Your task to perform on an android device: turn on showing notifications on the lock screen Image 0: 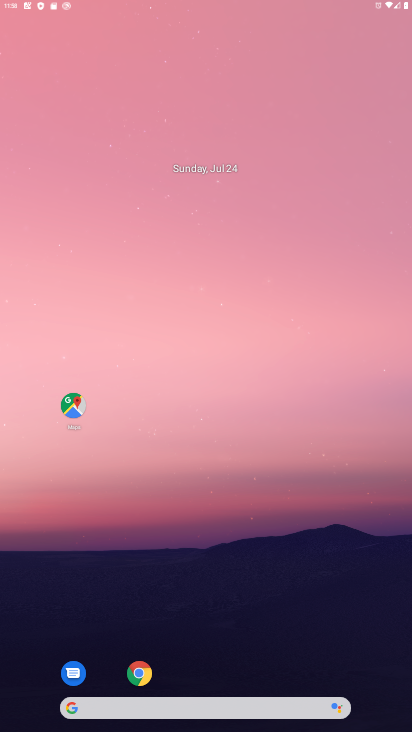
Step 0: drag from (305, 637) to (203, 103)
Your task to perform on an android device: turn on showing notifications on the lock screen Image 1: 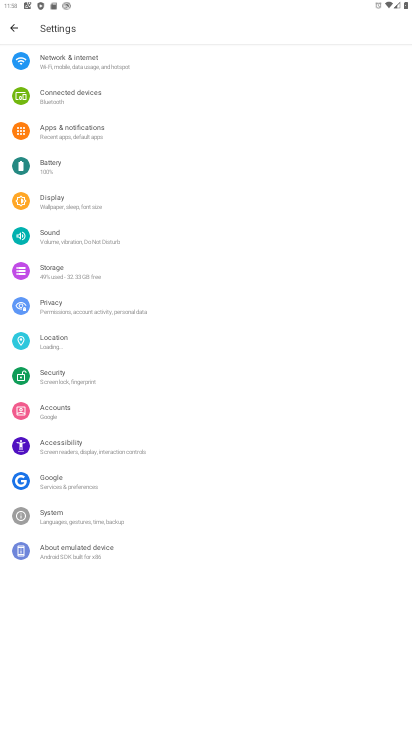
Step 1: press home button
Your task to perform on an android device: turn on showing notifications on the lock screen Image 2: 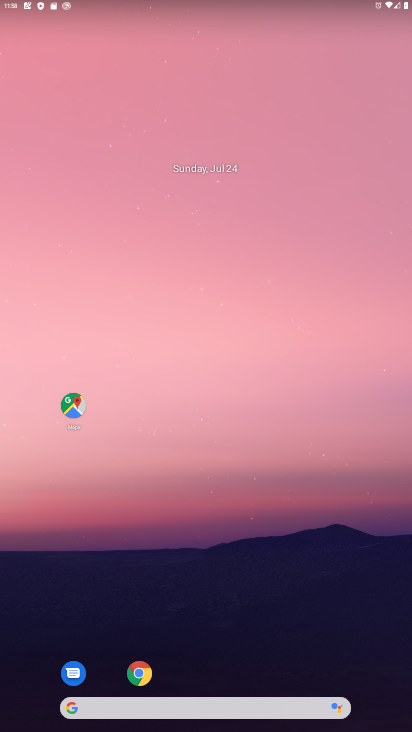
Step 2: drag from (339, 647) to (240, 139)
Your task to perform on an android device: turn on showing notifications on the lock screen Image 3: 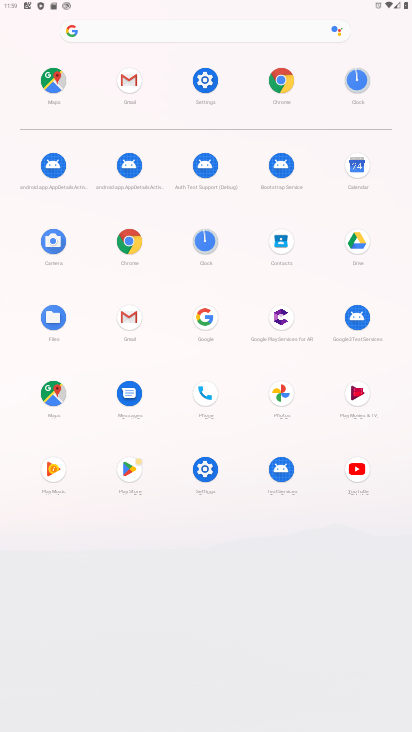
Step 3: click (205, 78)
Your task to perform on an android device: turn on showing notifications on the lock screen Image 4: 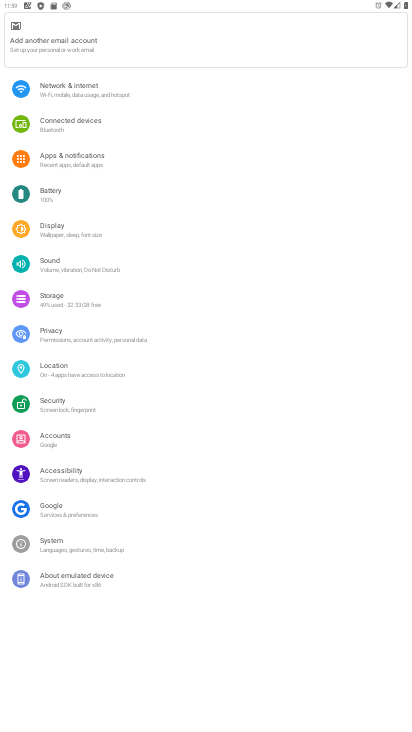
Step 4: click (76, 163)
Your task to perform on an android device: turn on showing notifications on the lock screen Image 5: 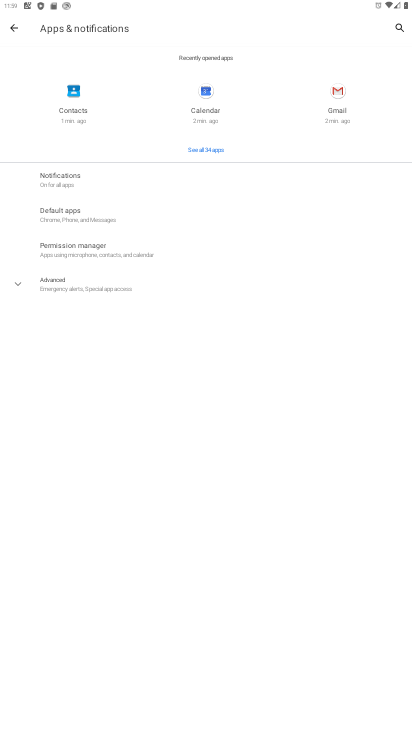
Step 5: click (80, 177)
Your task to perform on an android device: turn on showing notifications on the lock screen Image 6: 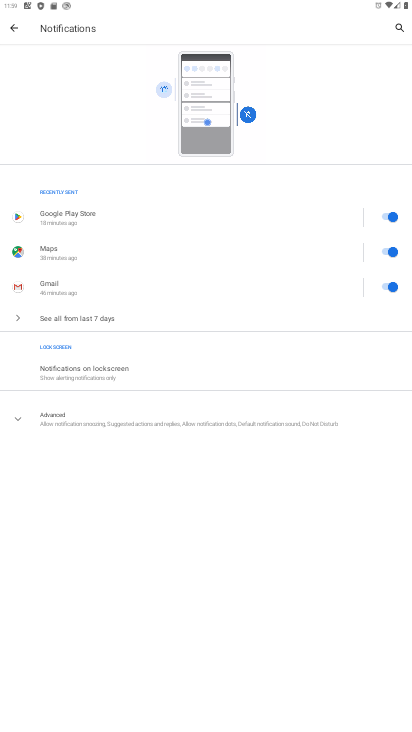
Step 6: click (105, 368)
Your task to perform on an android device: turn on showing notifications on the lock screen Image 7: 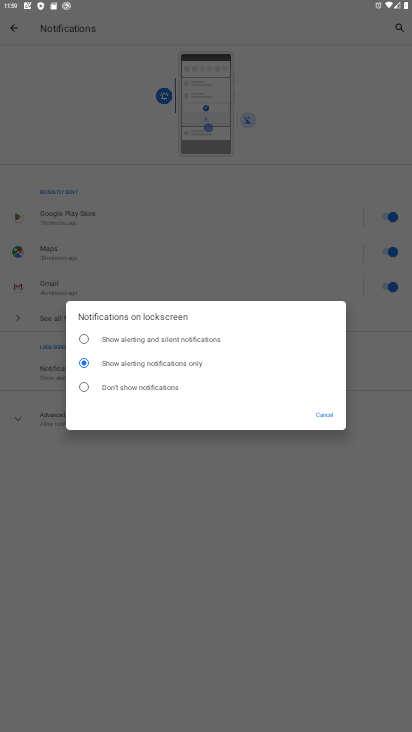
Step 7: task complete